Your task to perform on an android device: Play the last video I watched on Youtube Image 0: 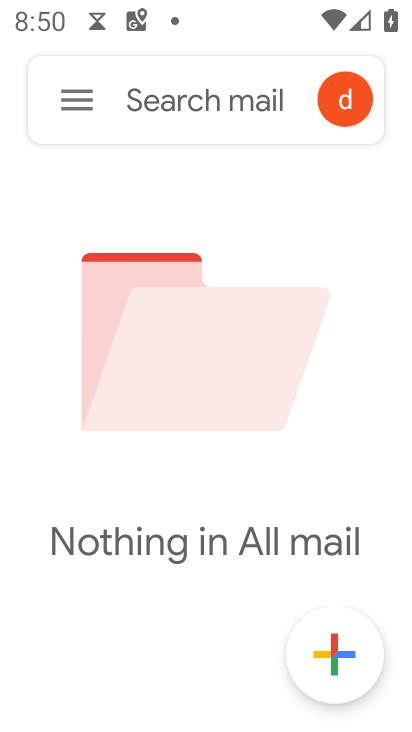
Step 0: press home button
Your task to perform on an android device: Play the last video I watched on Youtube Image 1: 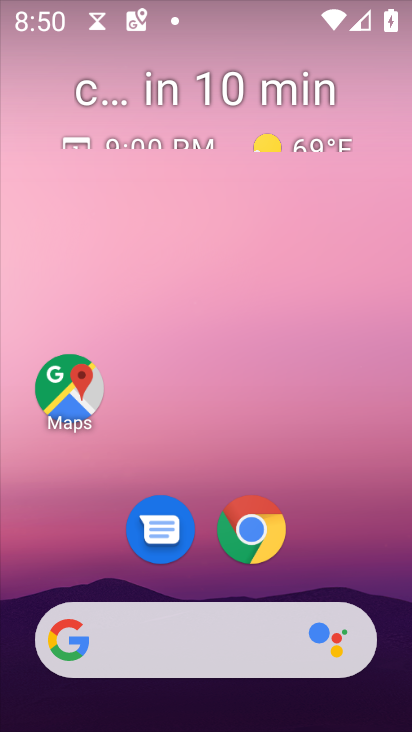
Step 1: drag from (353, 500) to (374, 325)
Your task to perform on an android device: Play the last video I watched on Youtube Image 2: 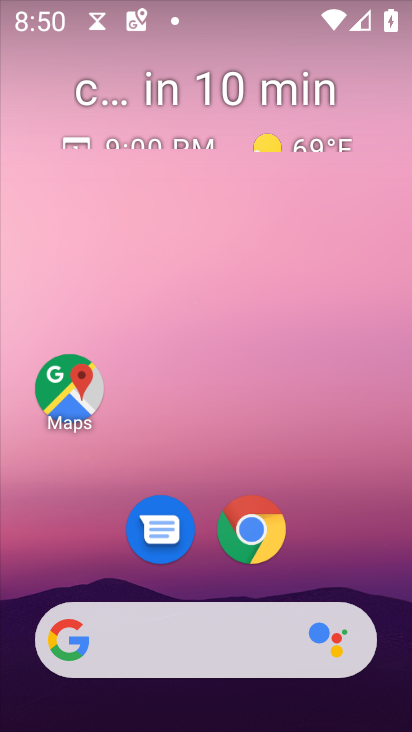
Step 2: drag from (356, 501) to (313, 17)
Your task to perform on an android device: Play the last video I watched on Youtube Image 3: 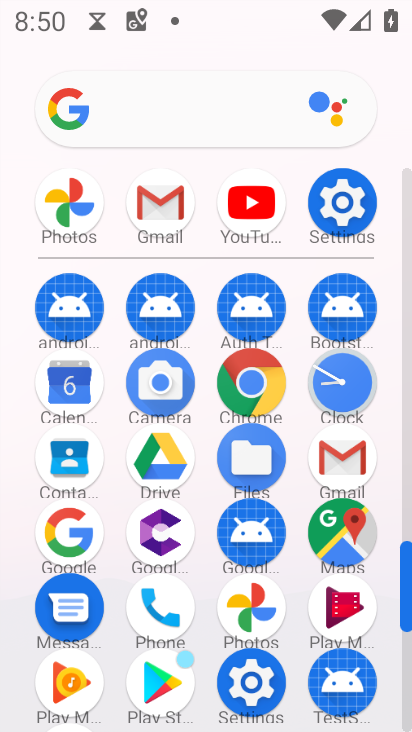
Step 3: click (247, 205)
Your task to perform on an android device: Play the last video I watched on Youtube Image 4: 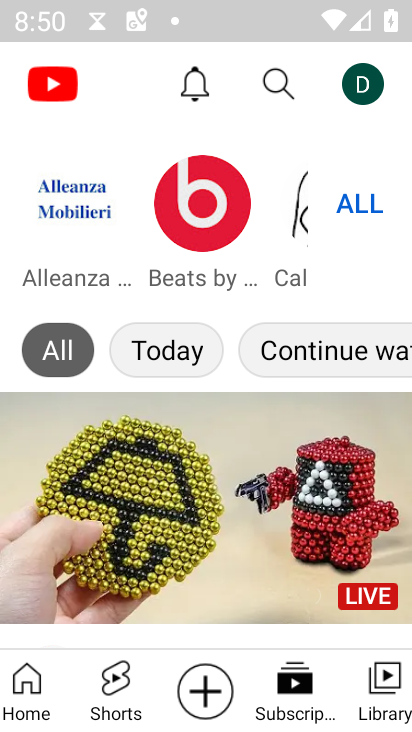
Step 4: click (376, 698)
Your task to perform on an android device: Play the last video I watched on Youtube Image 5: 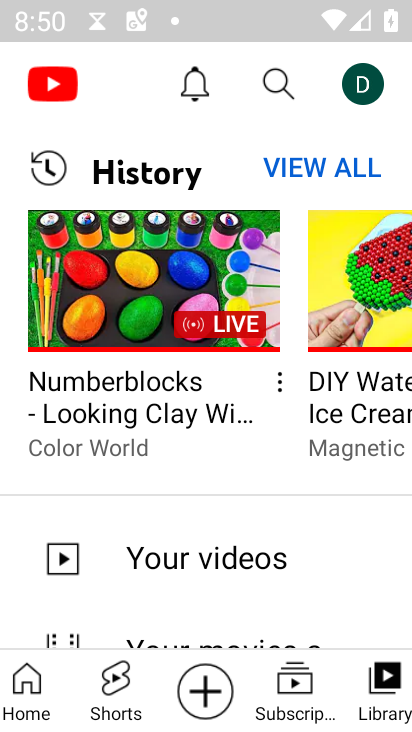
Step 5: click (86, 275)
Your task to perform on an android device: Play the last video I watched on Youtube Image 6: 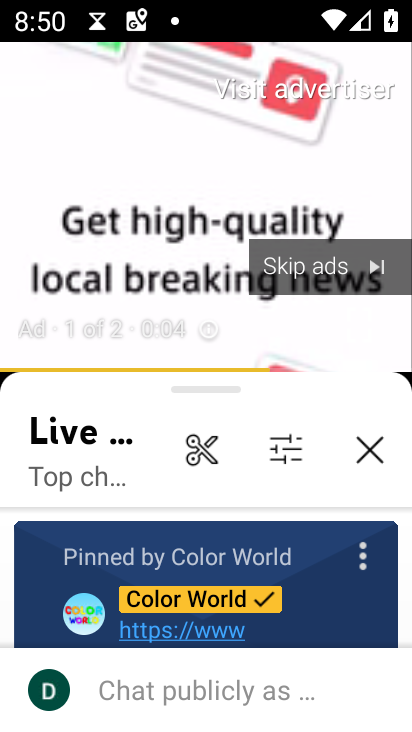
Step 6: click (322, 269)
Your task to perform on an android device: Play the last video I watched on Youtube Image 7: 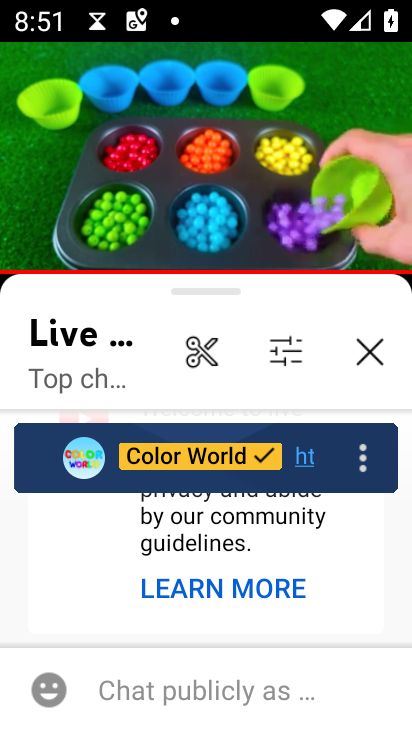
Step 7: task complete